Your task to perform on an android device: Open sound settings Image 0: 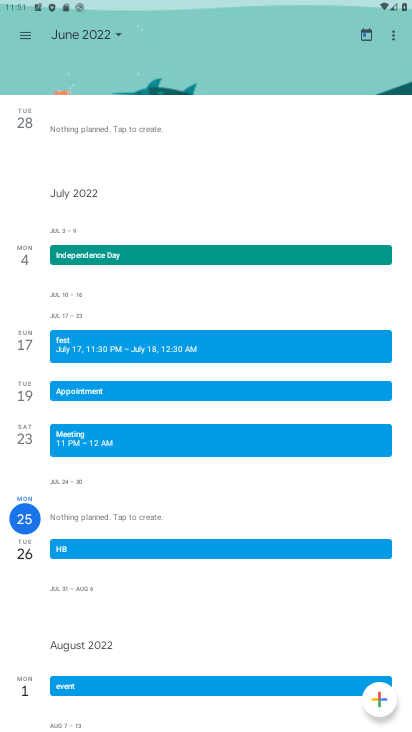
Step 0: press home button
Your task to perform on an android device: Open sound settings Image 1: 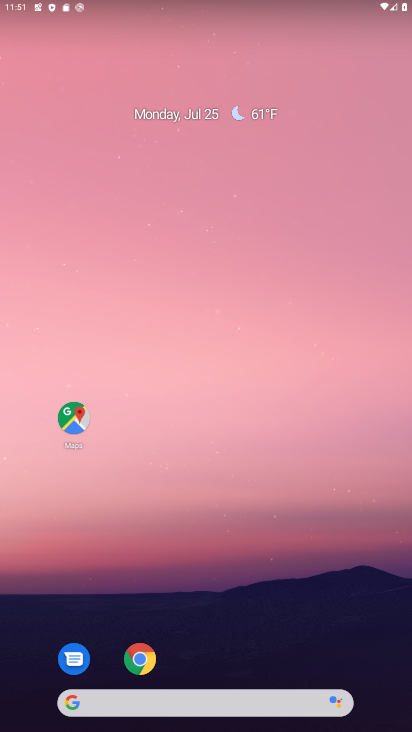
Step 1: drag from (220, 726) to (220, 103)
Your task to perform on an android device: Open sound settings Image 2: 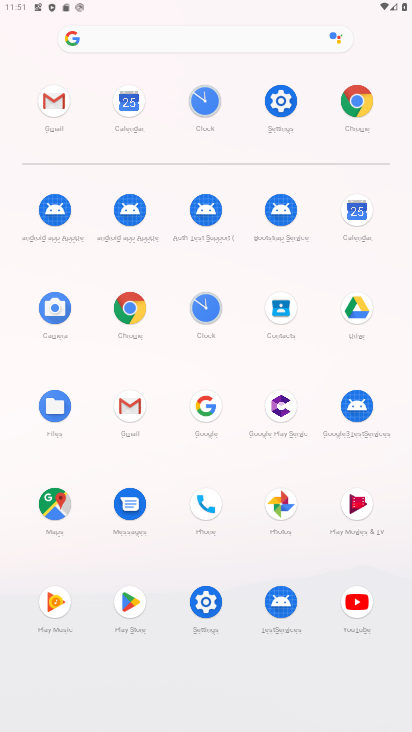
Step 2: click (281, 93)
Your task to perform on an android device: Open sound settings Image 3: 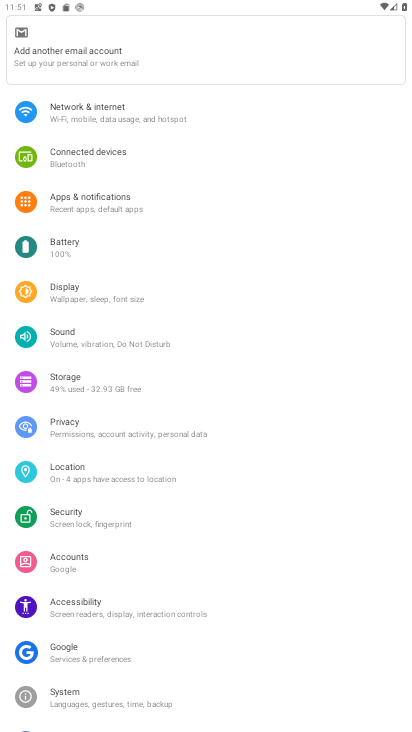
Step 3: click (73, 331)
Your task to perform on an android device: Open sound settings Image 4: 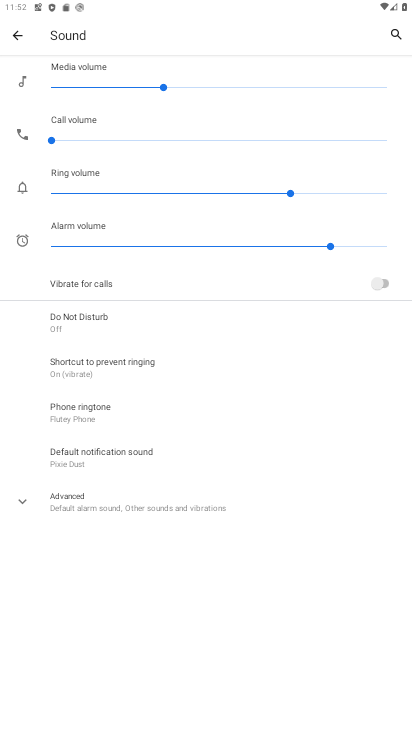
Step 4: task complete